Your task to perform on an android device: Go to Yahoo.com Image 0: 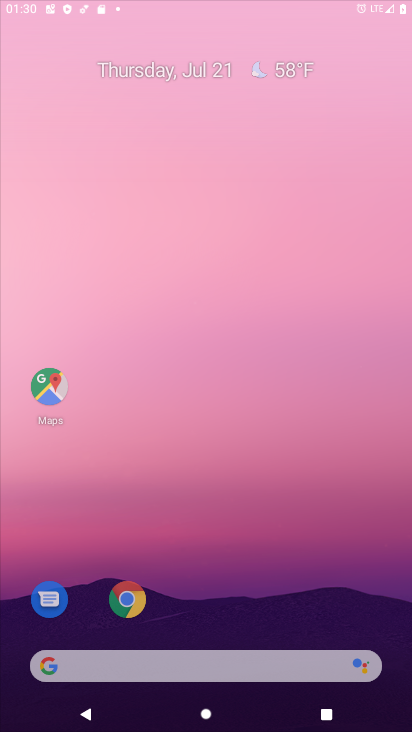
Step 0: press home button
Your task to perform on an android device: Go to Yahoo.com Image 1: 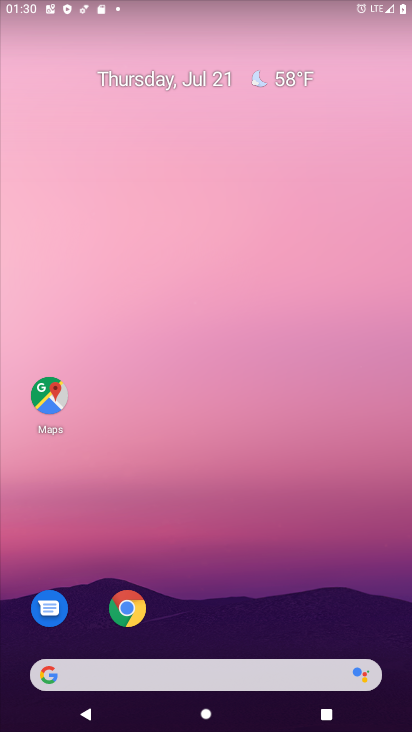
Step 1: click (126, 607)
Your task to perform on an android device: Go to Yahoo.com Image 2: 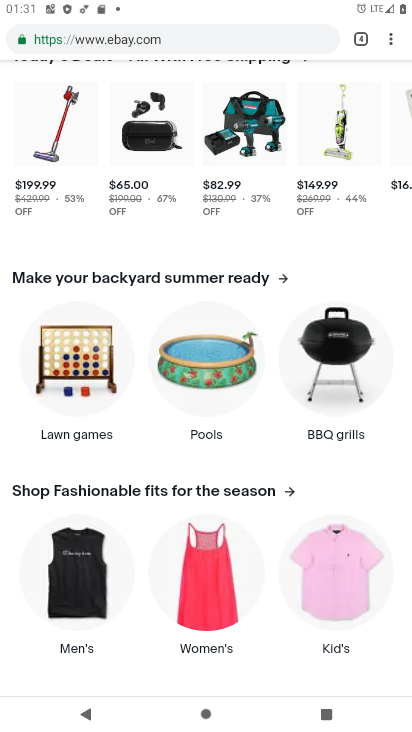
Step 2: click (354, 33)
Your task to perform on an android device: Go to Yahoo.com Image 3: 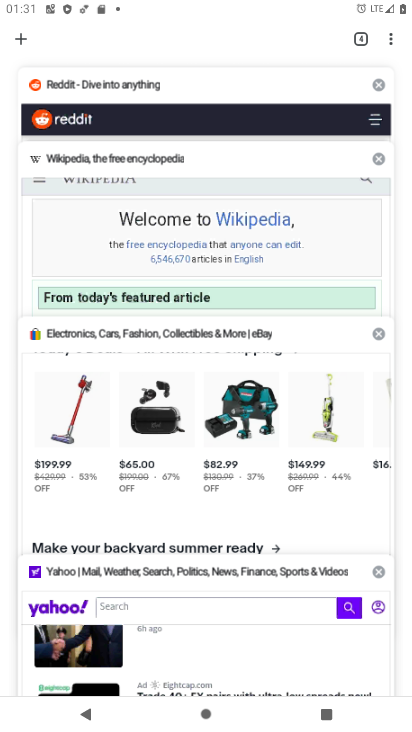
Step 3: click (126, 663)
Your task to perform on an android device: Go to Yahoo.com Image 4: 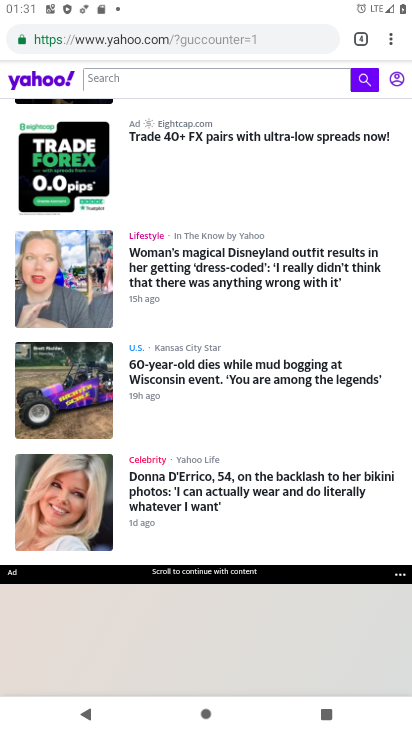
Step 4: task complete